Your task to perform on an android device: allow cookies in the chrome app Image 0: 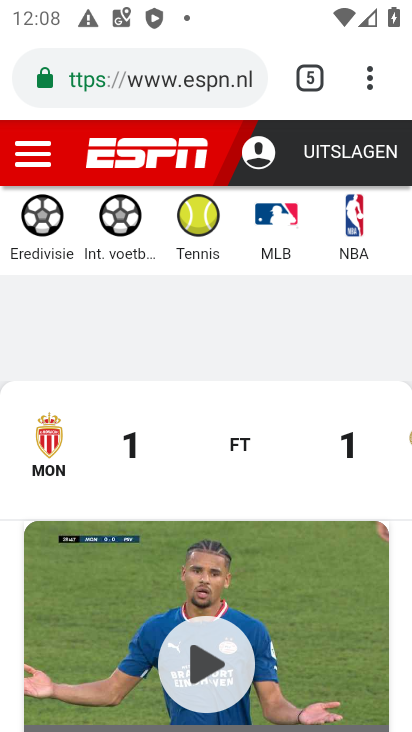
Step 0: click (368, 80)
Your task to perform on an android device: allow cookies in the chrome app Image 1: 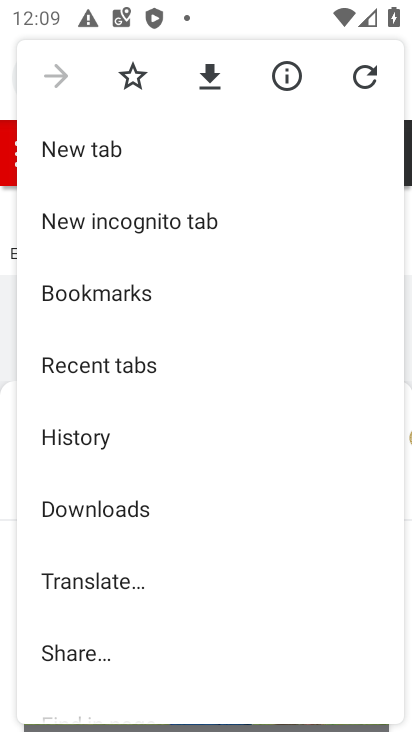
Step 1: drag from (105, 662) to (106, 206)
Your task to perform on an android device: allow cookies in the chrome app Image 2: 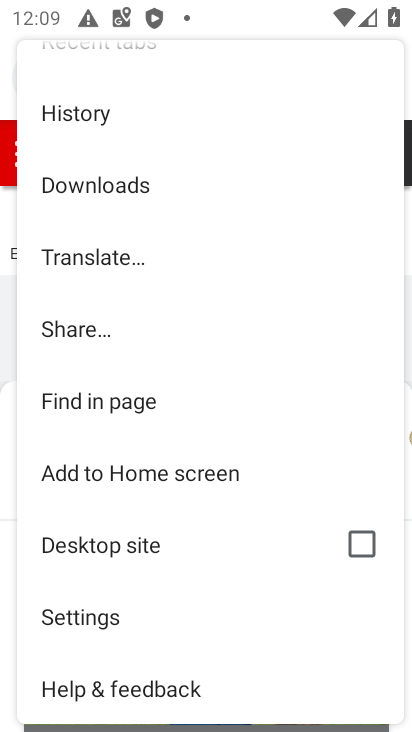
Step 2: click (85, 615)
Your task to perform on an android device: allow cookies in the chrome app Image 3: 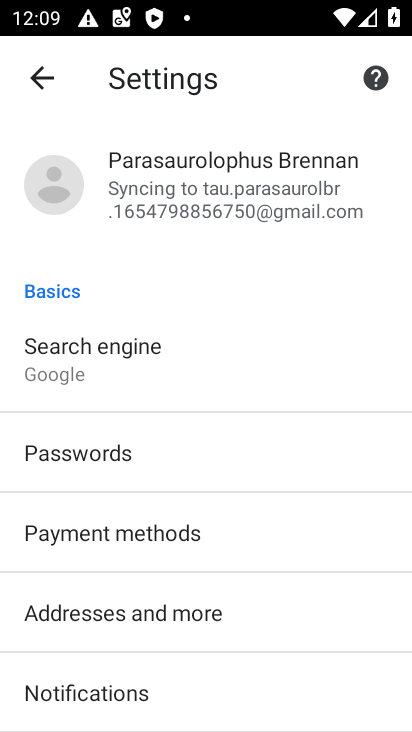
Step 3: drag from (171, 688) to (161, 569)
Your task to perform on an android device: allow cookies in the chrome app Image 4: 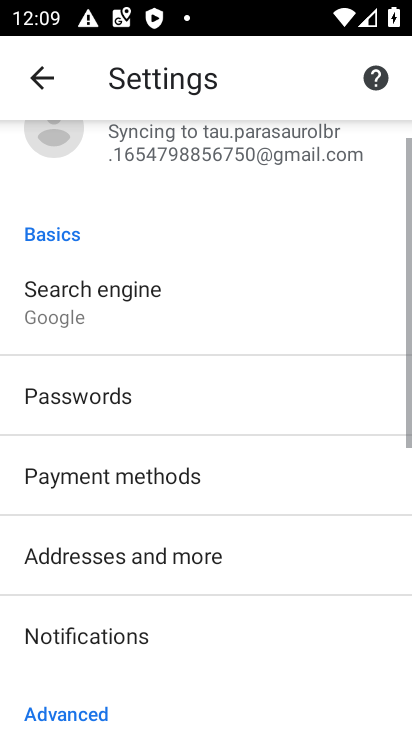
Step 4: drag from (160, 505) to (168, 319)
Your task to perform on an android device: allow cookies in the chrome app Image 5: 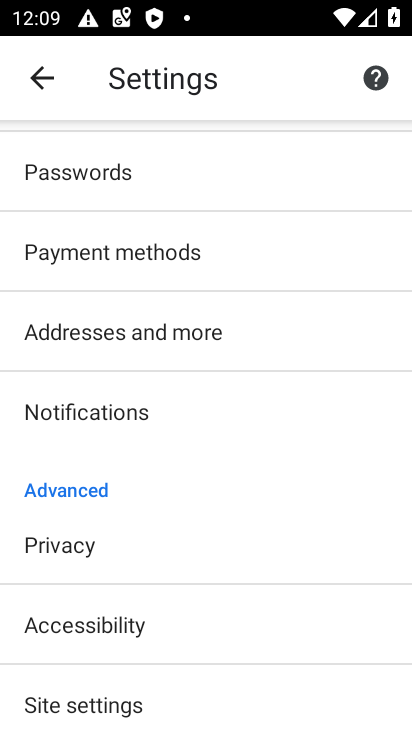
Step 5: drag from (177, 675) to (173, 368)
Your task to perform on an android device: allow cookies in the chrome app Image 6: 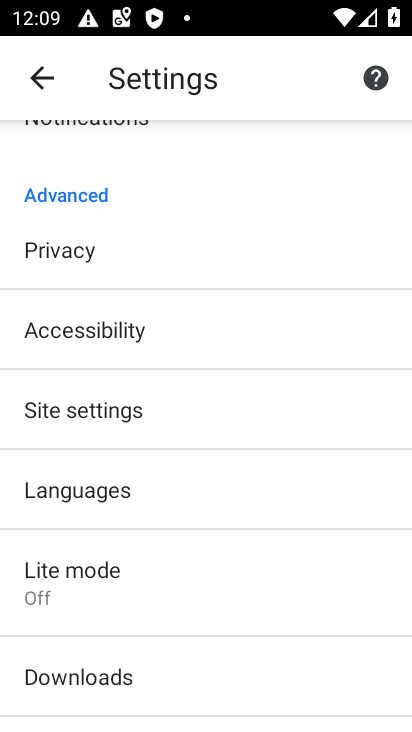
Step 6: click (107, 415)
Your task to perform on an android device: allow cookies in the chrome app Image 7: 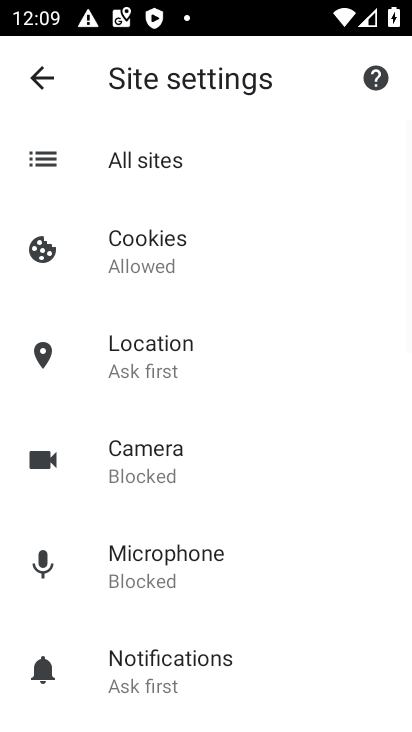
Step 7: click (161, 236)
Your task to perform on an android device: allow cookies in the chrome app Image 8: 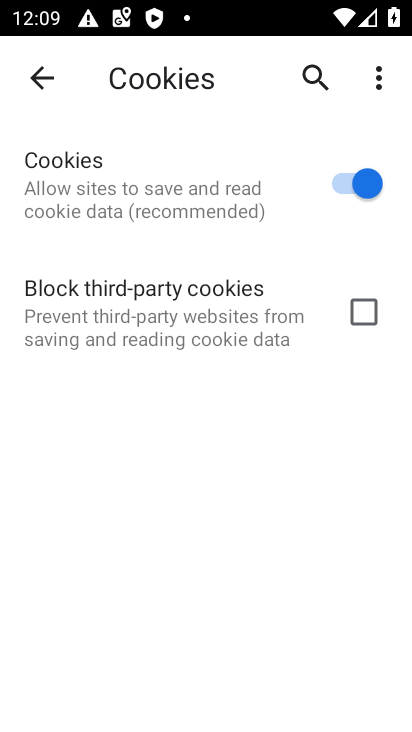
Step 8: task complete